Your task to perform on an android device: visit the assistant section in the google photos Image 0: 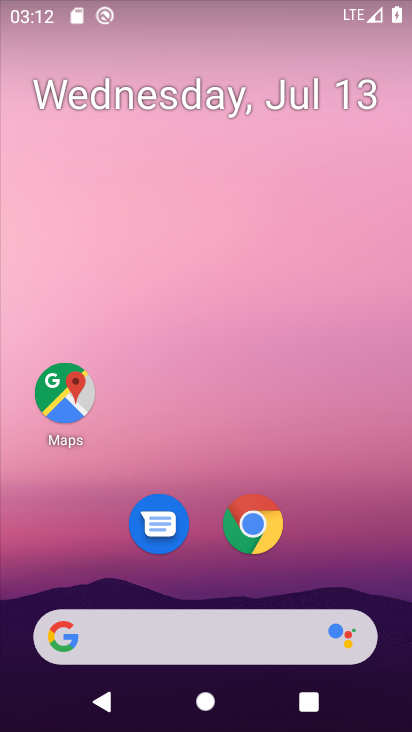
Step 0: drag from (350, 574) to (301, 29)
Your task to perform on an android device: visit the assistant section in the google photos Image 1: 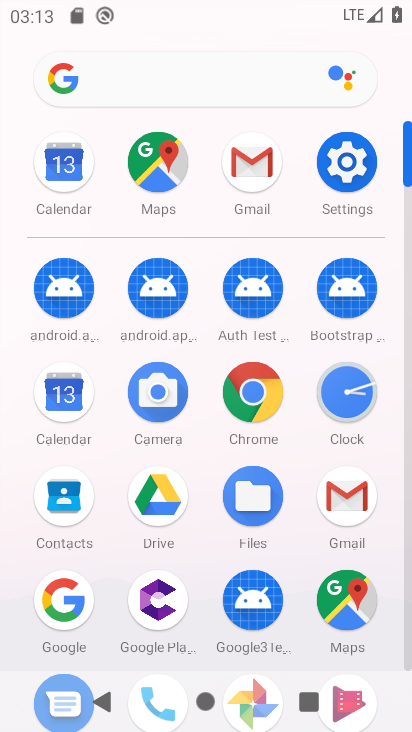
Step 1: drag from (208, 534) to (188, 238)
Your task to perform on an android device: visit the assistant section in the google photos Image 2: 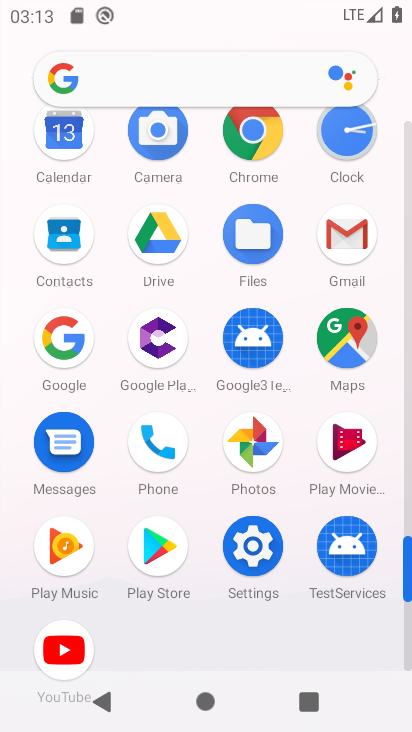
Step 2: click (242, 443)
Your task to perform on an android device: visit the assistant section in the google photos Image 3: 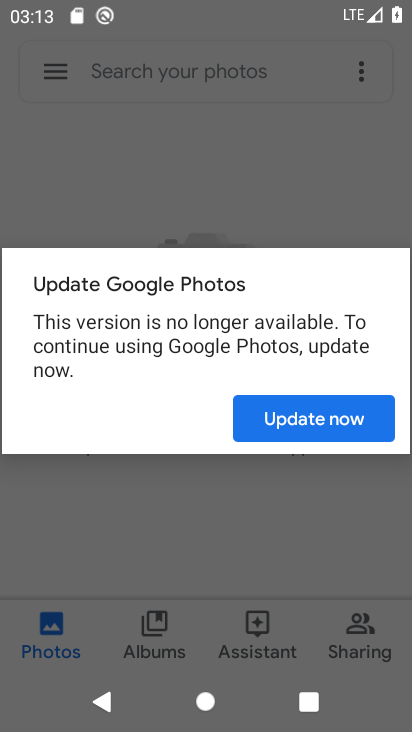
Step 3: click (287, 421)
Your task to perform on an android device: visit the assistant section in the google photos Image 4: 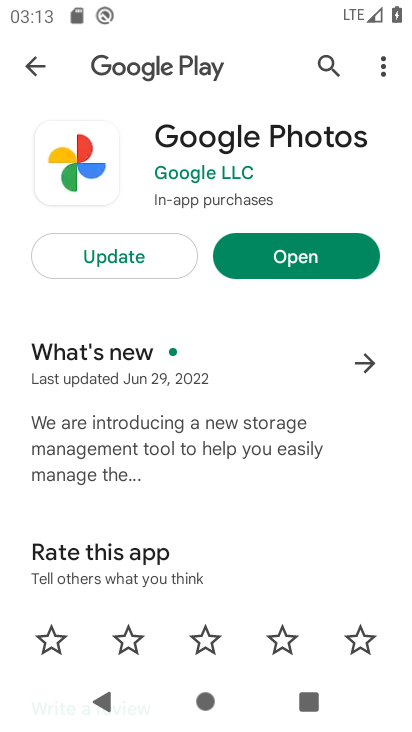
Step 4: click (247, 268)
Your task to perform on an android device: visit the assistant section in the google photos Image 5: 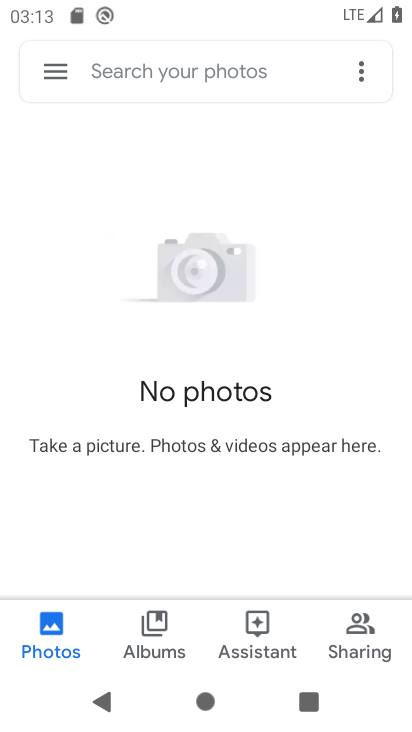
Step 5: click (261, 628)
Your task to perform on an android device: visit the assistant section in the google photos Image 6: 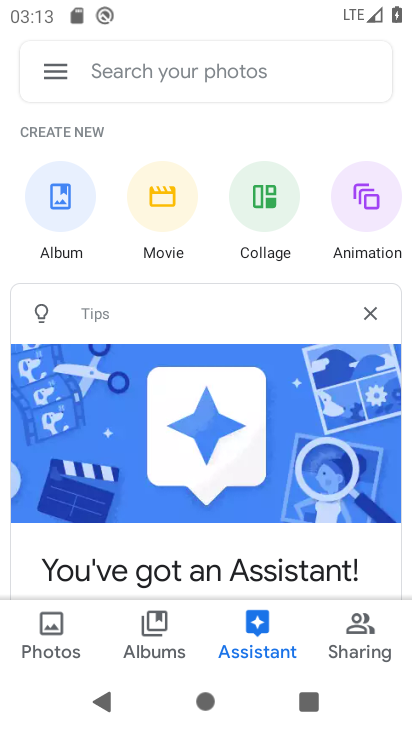
Step 6: task complete